Your task to perform on an android device: Go to Reddit.com Image 0: 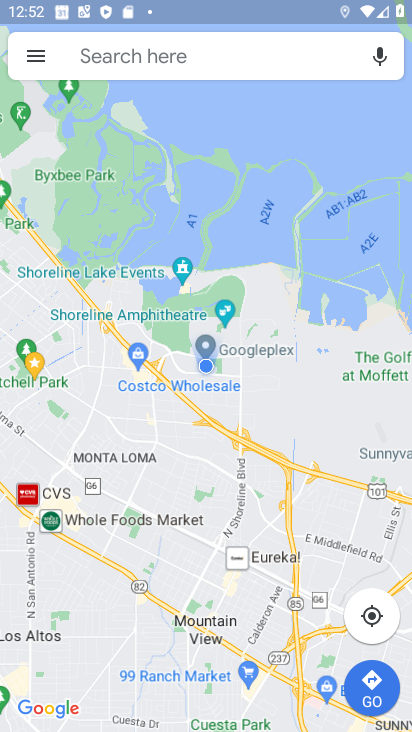
Step 0: press back button
Your task to perform on an android device: Go to Reddit.com Image 1: 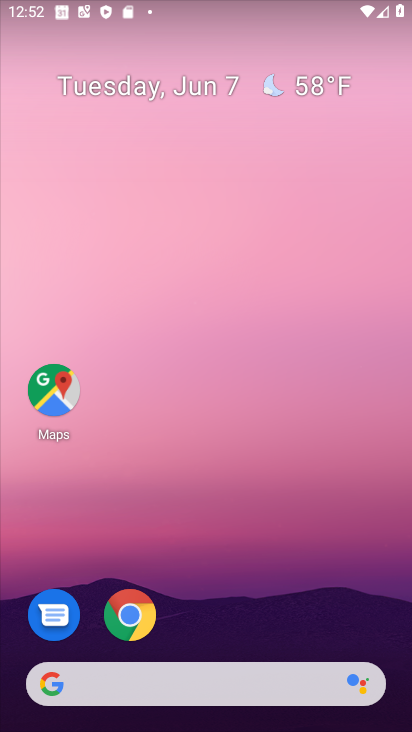
Step 1: click (131, 614)
Your task to perform on an android device: Go to Reddit.com Image 2: 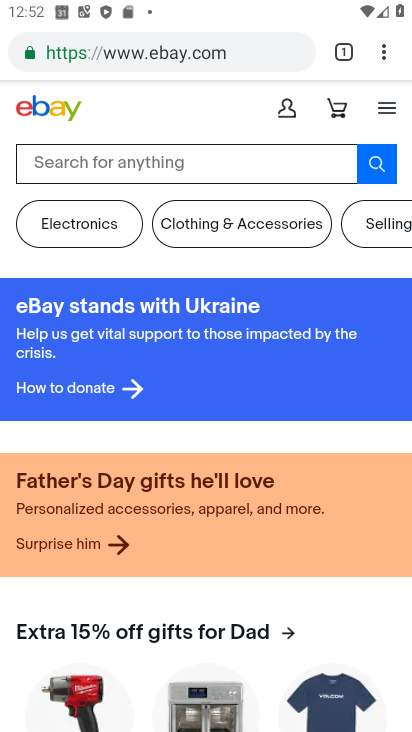
Step 2: click (251, 58)
Your task to perform on an android device: Go to Reddit.com Image 3: 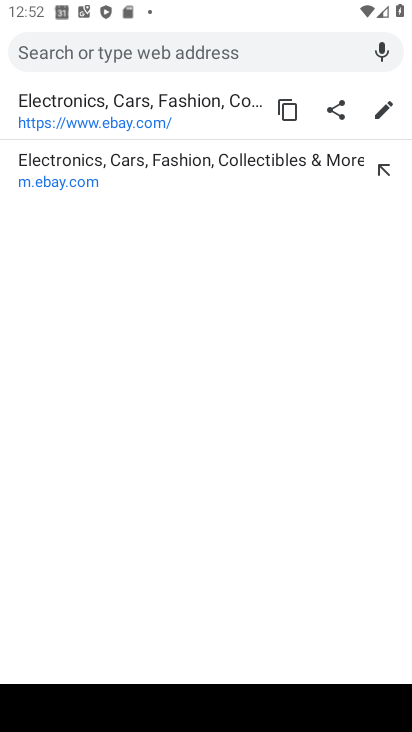
Step 3: type "Reddit.com"
Your task to perform on an android device: Go to Reddit.com Image 4: 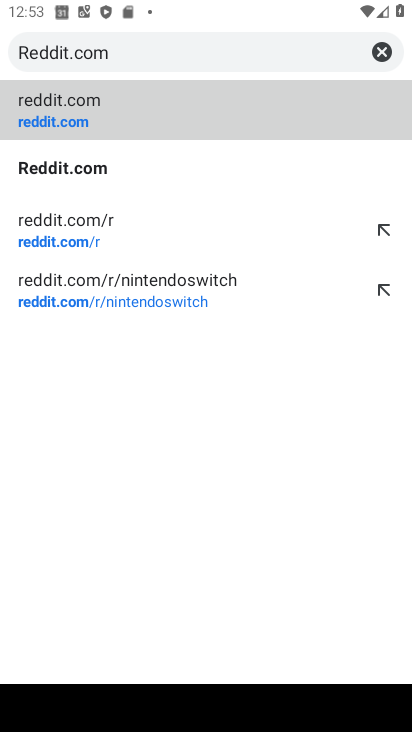
Step 4: click (91, 169)
Your task to perform on an android device: Go to Reddit.com Image 5: 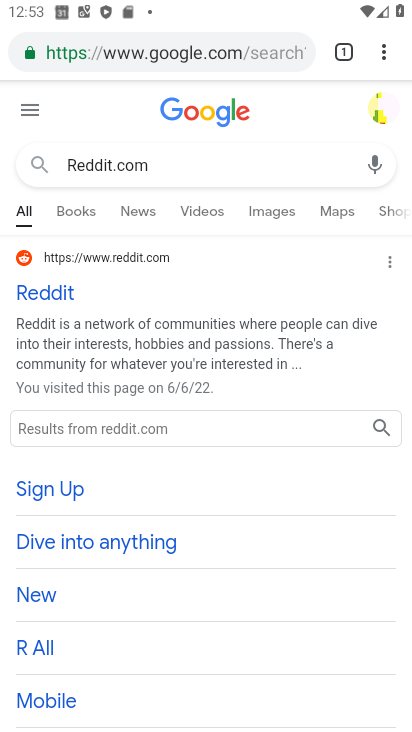
Step 5: click (55, 292)
Your task to perform on an android device: Go to Reddit.com Image 6: 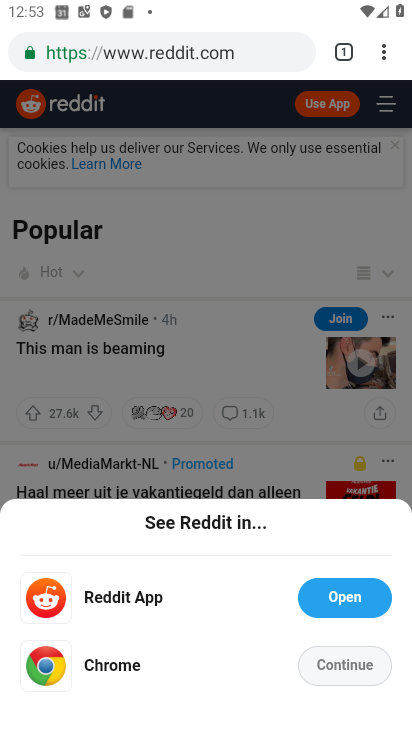
Step 6: click (346, 665)
Your task to perform on an android device: Go to Reddit.com Image 7: 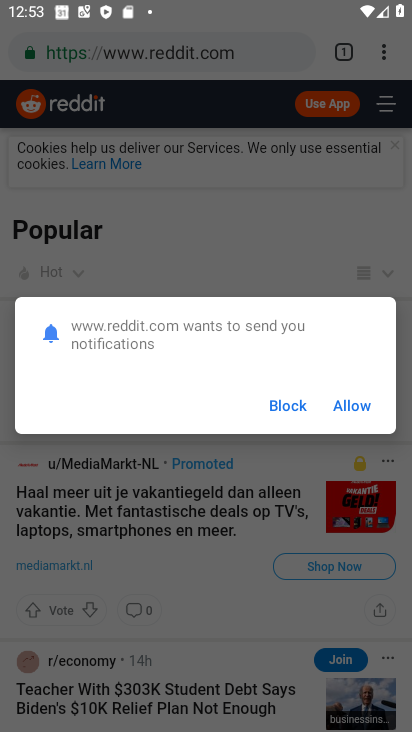
Step 7: click (358, 402)
Your task to perform on an android device: Go to Reddit.com Image 8: 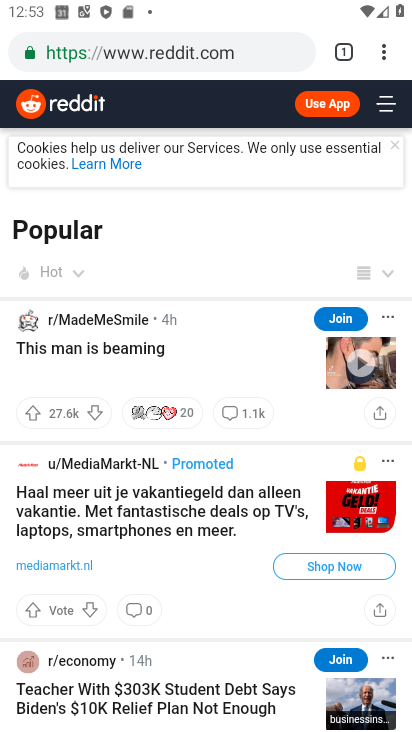
Step 8: task complete